Your task to perform on an android device: Open settings on Google Maps Image 0: 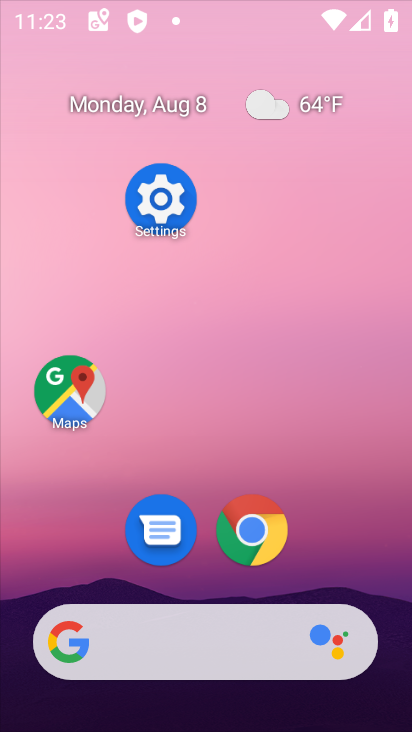
Step 0: click (163, 80)
Your task to perform on an android device: Open settings on Google Maps Image 1: 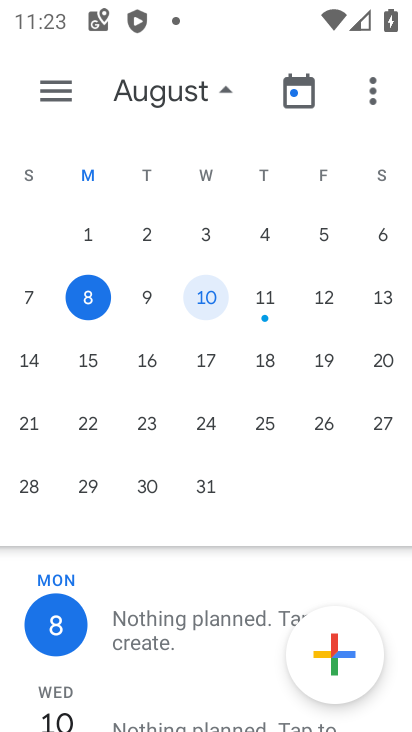
Step 1: drag from (259, 538) to (240, 331)
Your task to perform on an android device: Open settings on Google Maps Image 2: 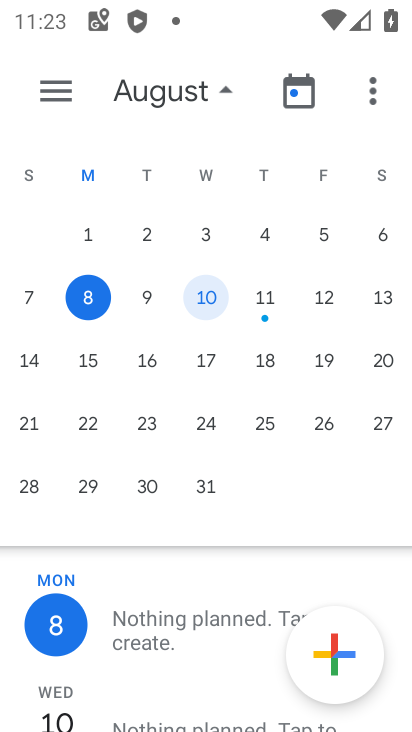
Step 2: press back button
Your task to perform on an android device: Open settings on Google Maps Image 3: 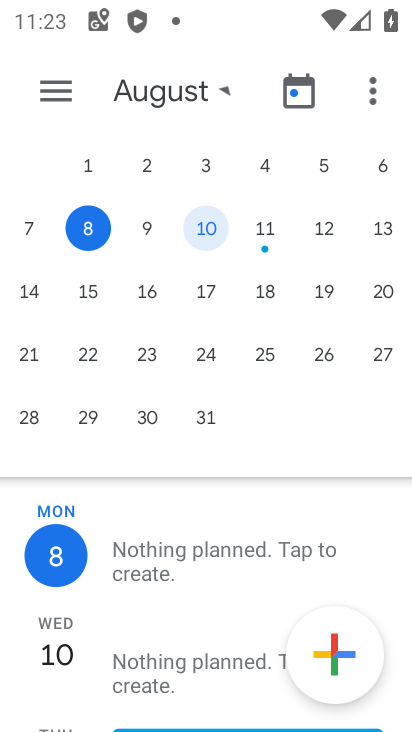
Step 3: press back button
Your task to perform on an android device: Open settings on Google Maps Image 4: 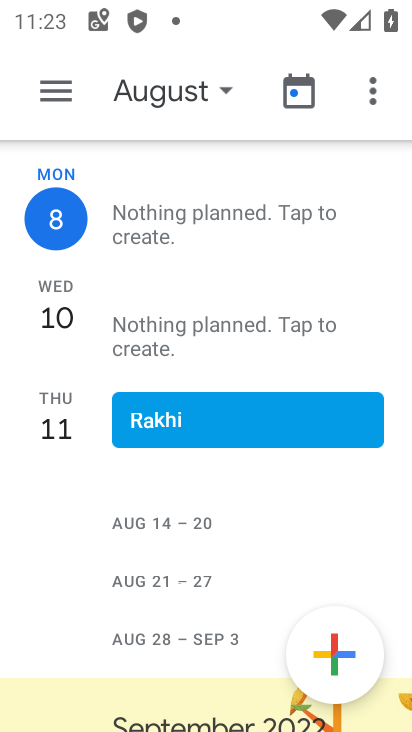
Step 4: press back button
Your task to perform on an android device: Open settings on Google Maps Image 5: 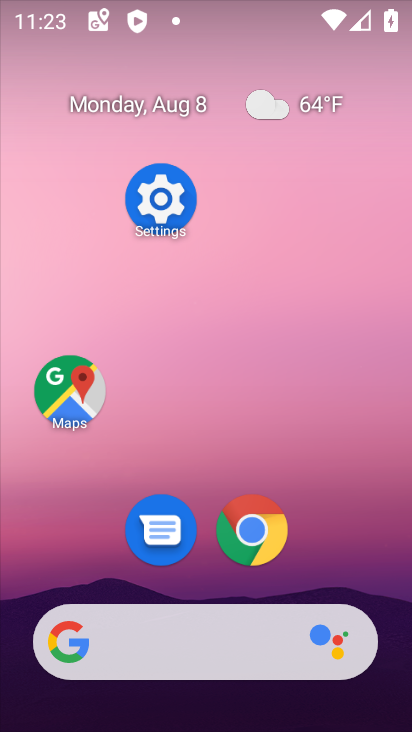
Step 5: drag from (237, 565) to (168, 137)
Your task to perform on an android device: Open settings on Google Maps Image 6: 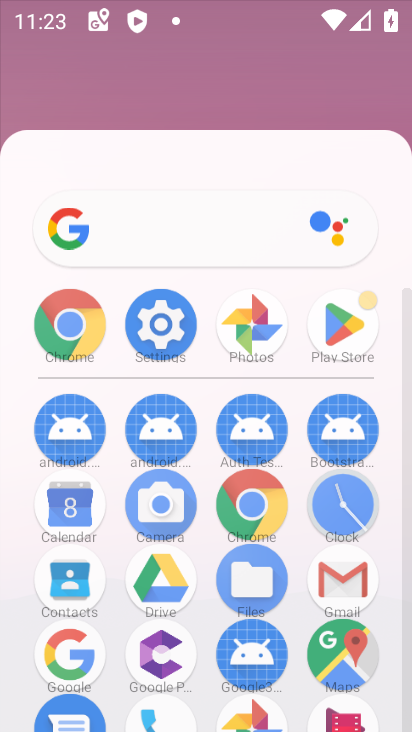
Step 6: drag from (190, 525) to (179, 116)
Your task to perform on an android device: Open settings on Google Maps Image 7: 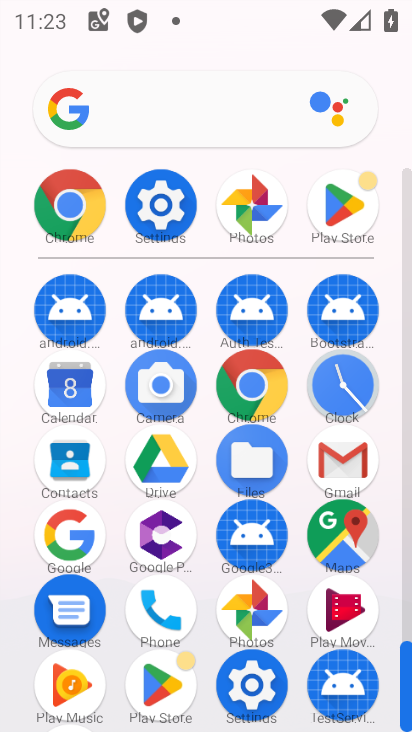
Step 7: drag from (301, 721) to (248, 380)
Your task to perform on an android device: Open settings on Google Maps Image 8: 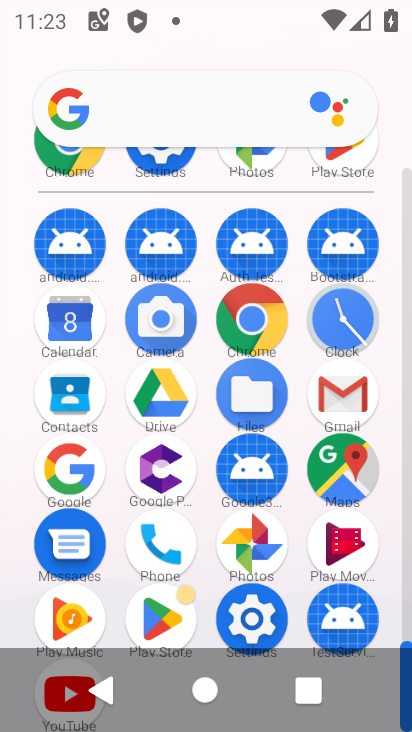
Step 8: click (355, 456)
Your task to perform on an android device: Open settings on Google Maps Image 9: 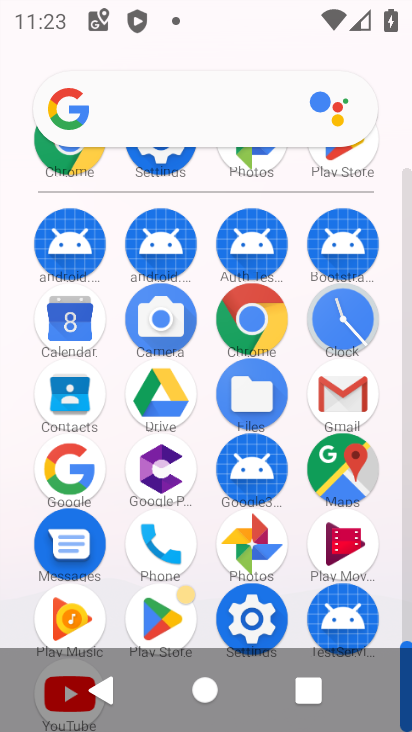
Step 9: click (355, 457)
Your task to perform on an android device: Open settings on Google Maps Image 10: 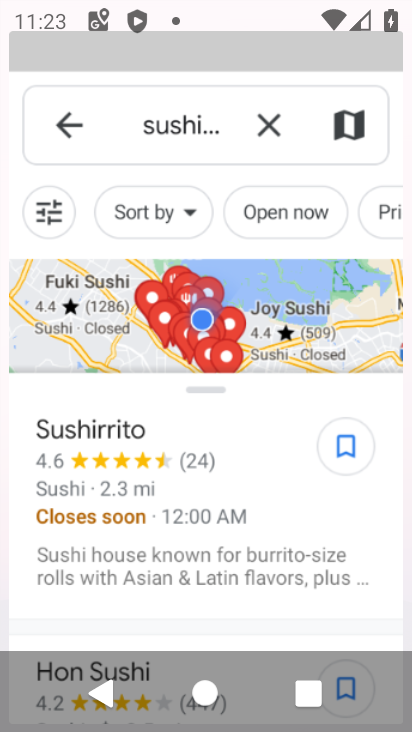
Step 10: click (354, 482)
Your task to perform on an android device: Open settings on Google Maps Image 11: 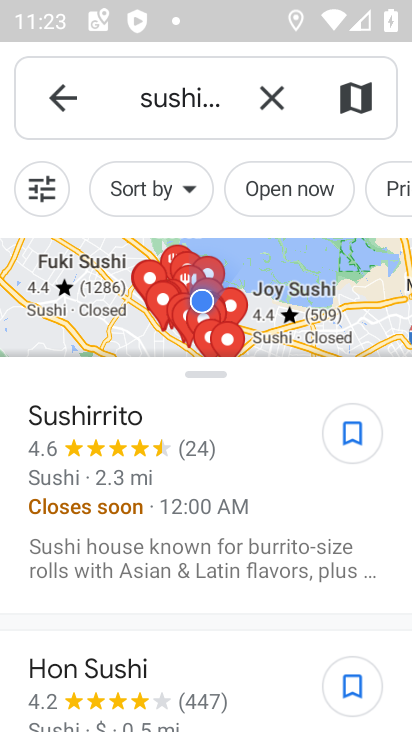
Step 11: click (265, 80)
Your task to perform on an android device: Open settings on Google Maps Image 12: 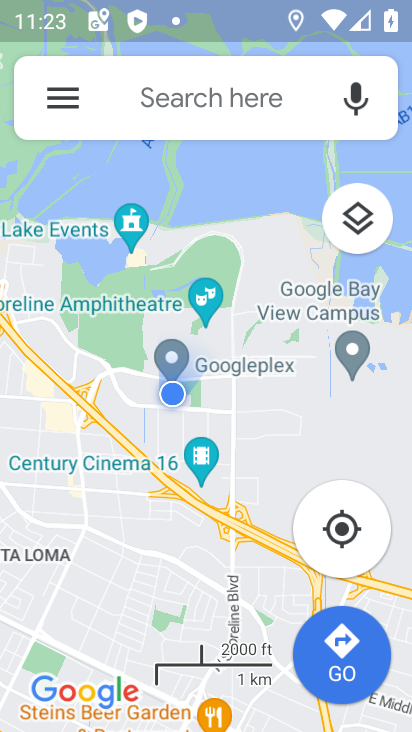
Step 12: click (62, 91)
Your task to perform on an android device: Open settings on Google Maps Image 13: 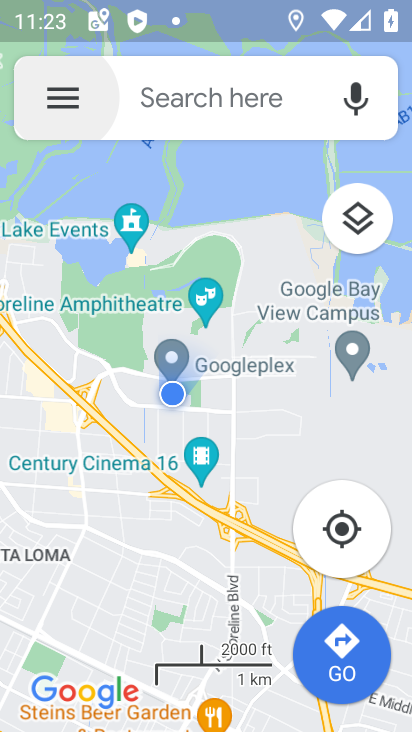
Step 13: click (62, 91)
Your task to perform on an android device: Open settings on Google Maps Image 14: 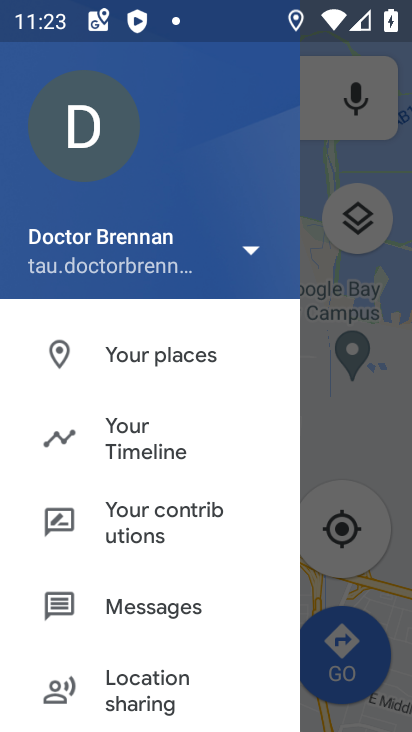
Step 14: drag from (166, 607) to (178, 322)
Your task to perform on an android device: Open settings on Google Maps Image 15: 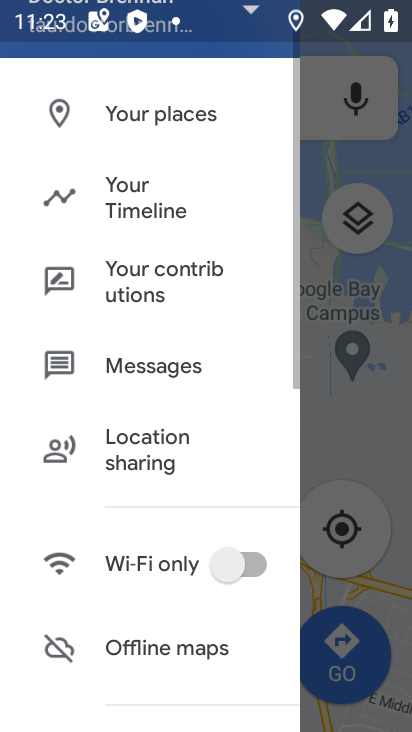
Step 15: drag from (158, 577) to (179, 295)
Your task to perform on an android device: Open settings on Google Maps Image 16: 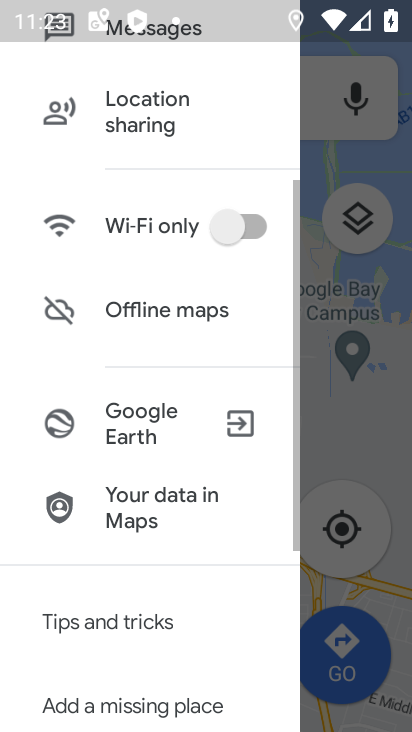
Step 16: drag from (178, 485) to (183, 200)
Your task to perform on an android device: Open settings on Google Maps Image 17: 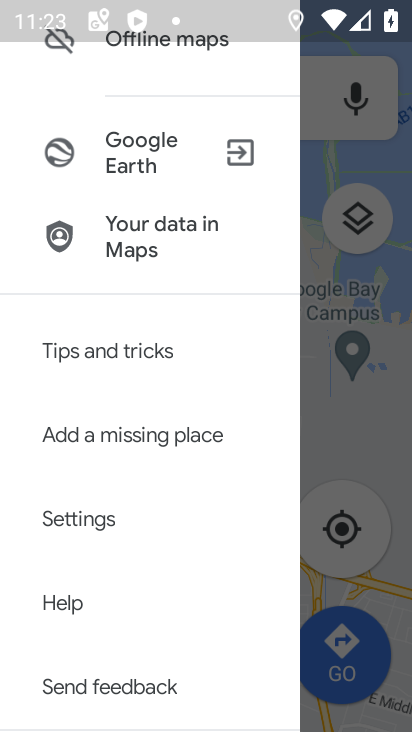
Step 17: click (62, 528)
Your task to perform on an android device: Open settings on Google Maps Image 18: 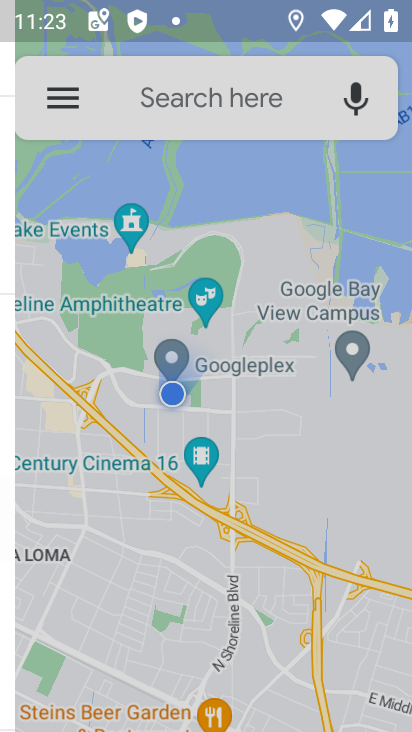
Step 18: click (58, 529)
Your task to perform on an android device: Open settings on Google Maps Image 19: 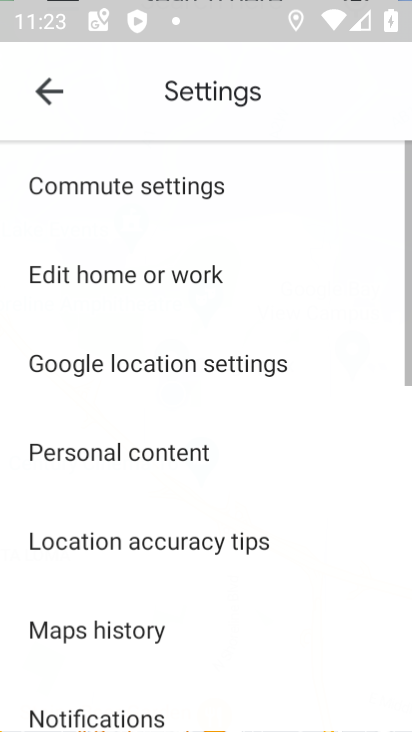
Step 19: click (60, 531)
Your task to perform on an android device: Open settings on Google Maps Image 20: 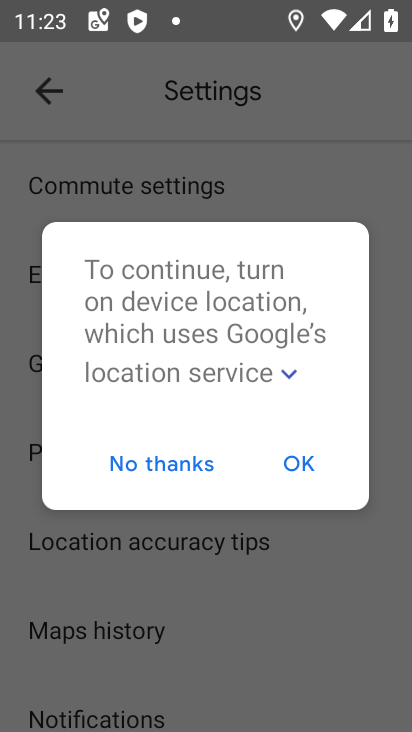
Step 20: task complete